Your task to perform on an android device: Go to eBay Image 0: 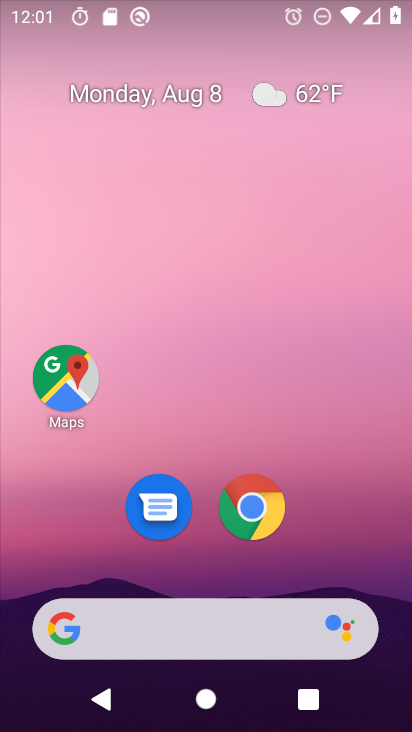
Step 0: drag from (355, 545) to (291, 57)
Your task to perform on an android device: Go to eBay Image 1: 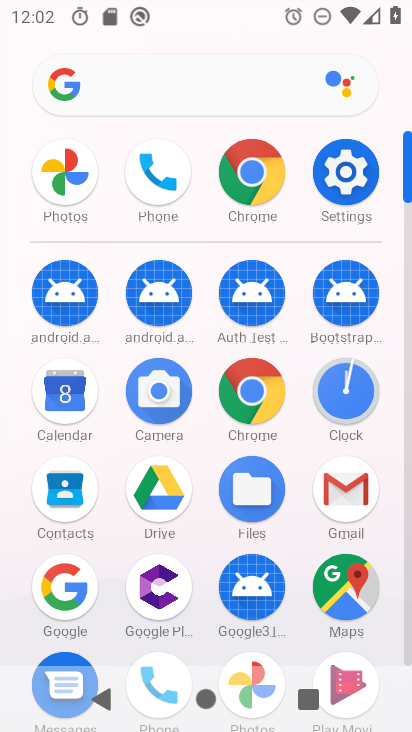
Step 1: click (255, 402)
Your task to perform on an android device: Go to eBay Image 2: 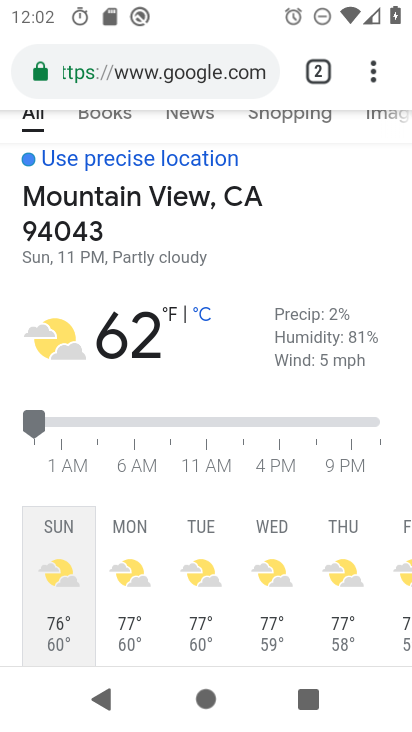
Step 2: click (244, 73)
Your task to perform on an android device: Go to eBay Image 3: 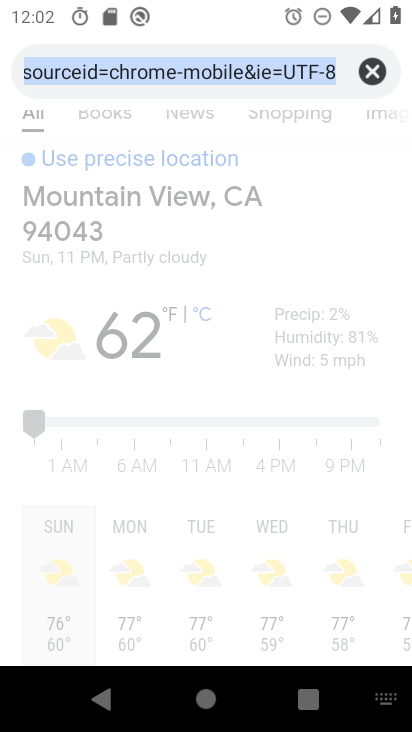
Step 3: type "ebay"
Your task to perform on an android device: Go to eBay Image 4: 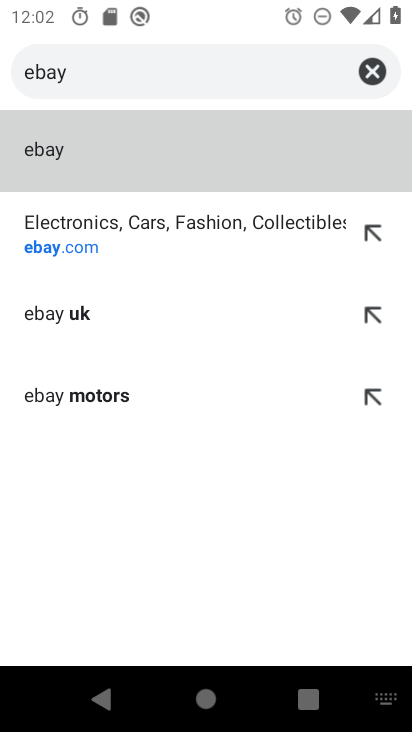
Step 4: click (63, 241)
Your task to perform on an android device: Go to eBay Image 5: 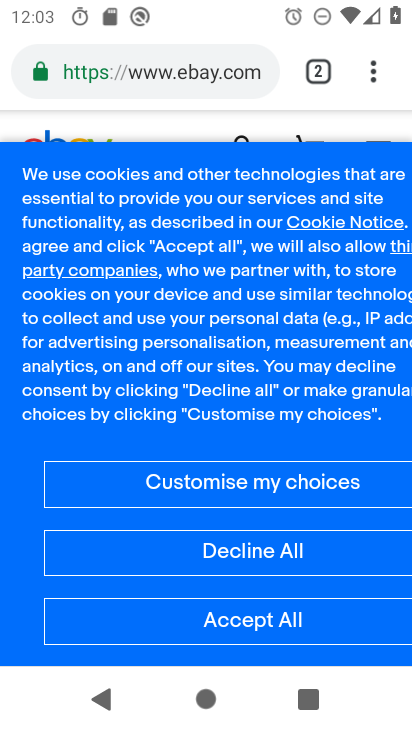
Step 5: task complete